Your task to perform on an android device: Open Android settings Image 0: 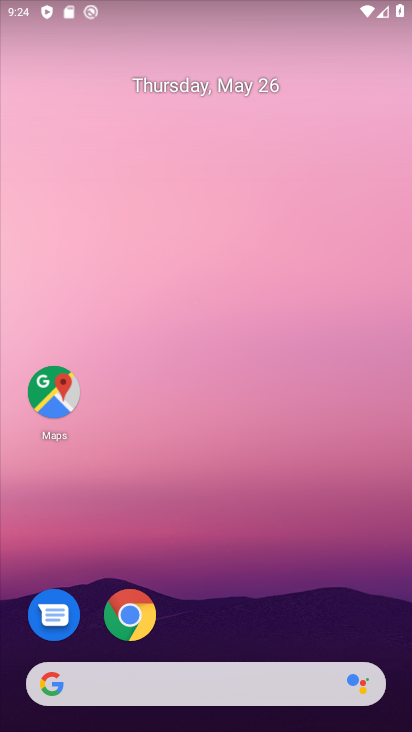
Step 0: drag from (145, 725) to (113, 213)
Your task to perform on an android device: Open Android settings Image 1: 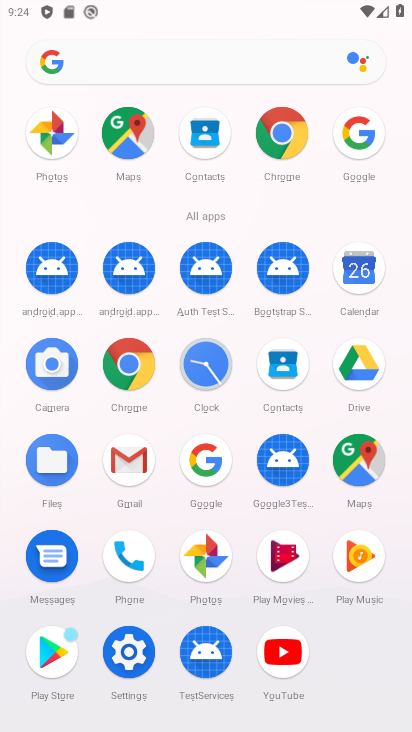
Step 1: click (127, 648)
Your task to perform on an android device: Open Android settings Image 2: 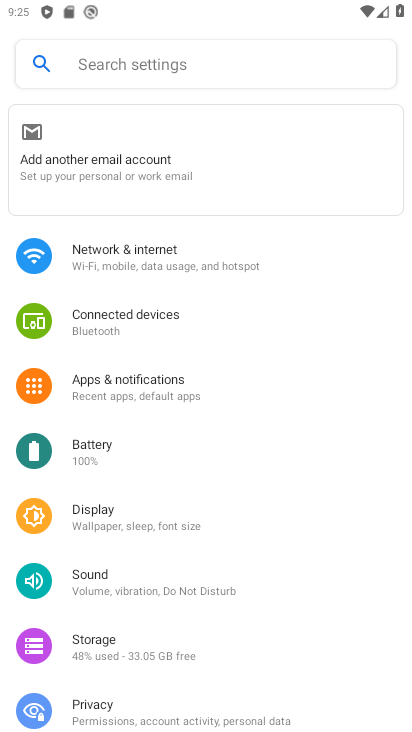
Step 2: task complete